Your task to perform on an android device: check data usage Image 0: 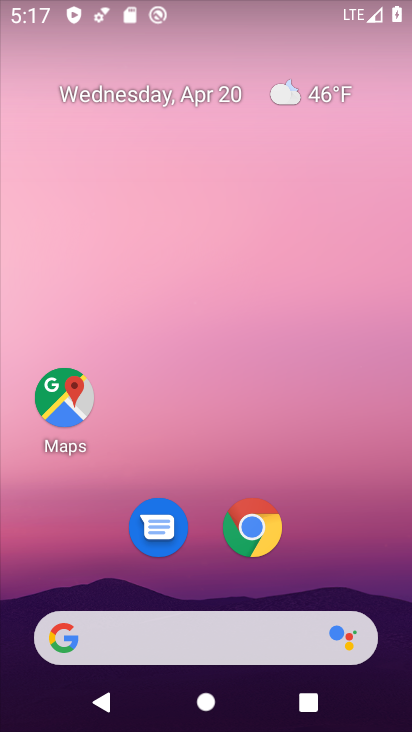
Step 0: drag from (189, 281) to (186, 102)
Your task to perform on an android device: check data usage Image 1: 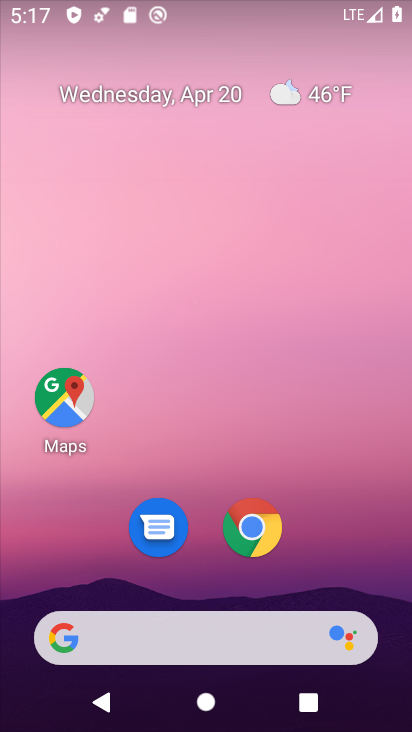
Step 1: drag from (223, 520) to (197, 3)
Your task to perform on an android device: check data usage Image 2: 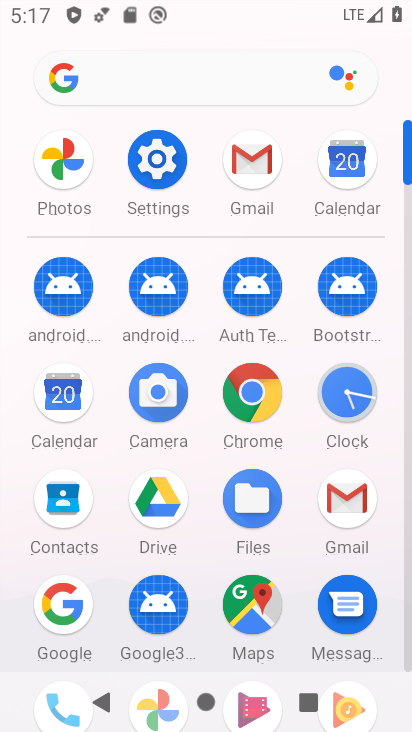
Step 2: click (345, 443)
Your task to perform on an android device: check data usage Image 3: 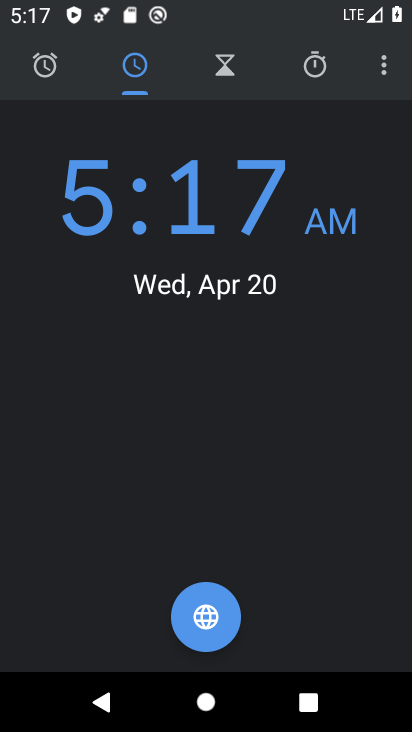
Step 3: click (383, 60)
Your task to perform on an android device: check data usage Image 4: 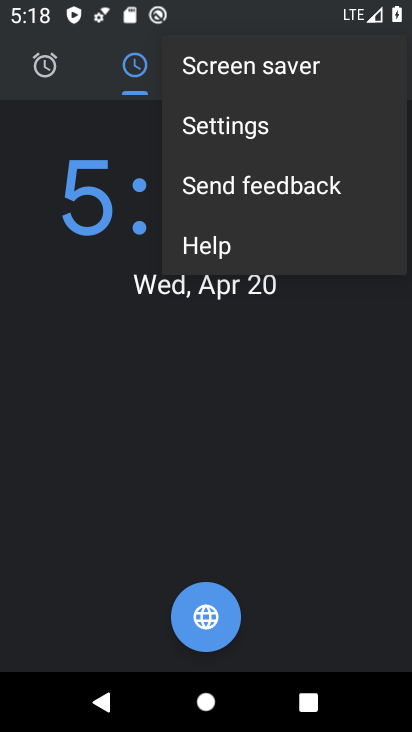
Step 4: click (229, 121)
Your task to perform on an android device: check data usage Image 5: 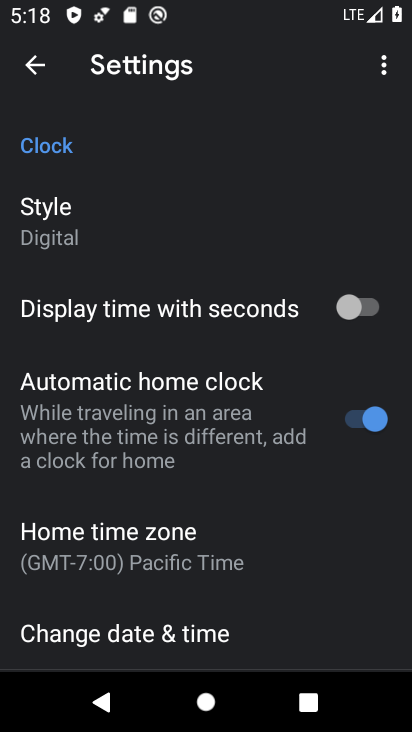
Step 5: press home button
Your task to perform on an android device: check data usage Image 6: 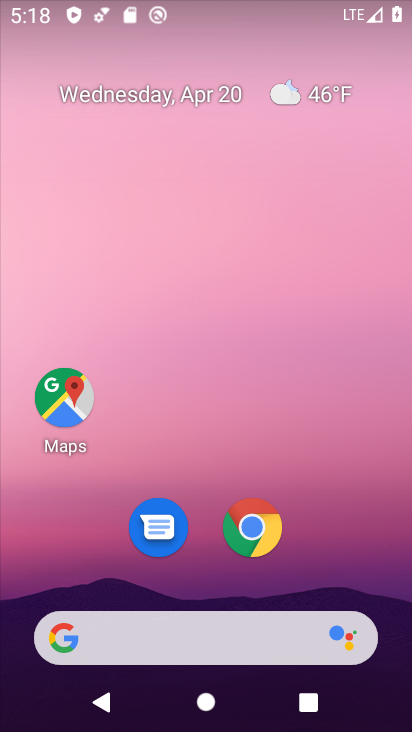
Step 6: drag from (207, 582) to (180, 73)
Your task to perform on an android device: check data usage Image 7: 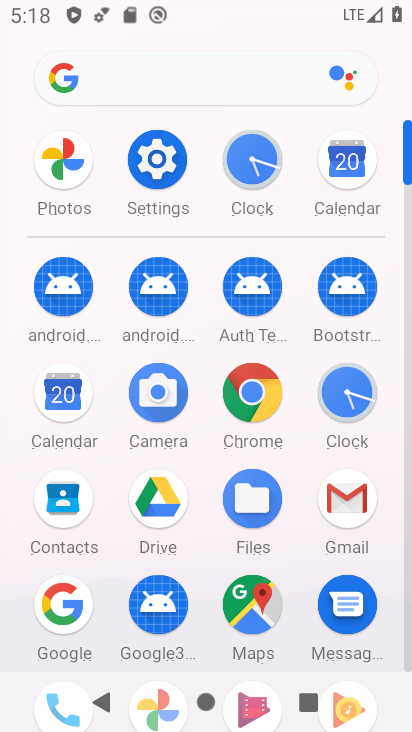
Step 7: click (165, 157)
Your task to perform on an android device: check data usage Image 8: 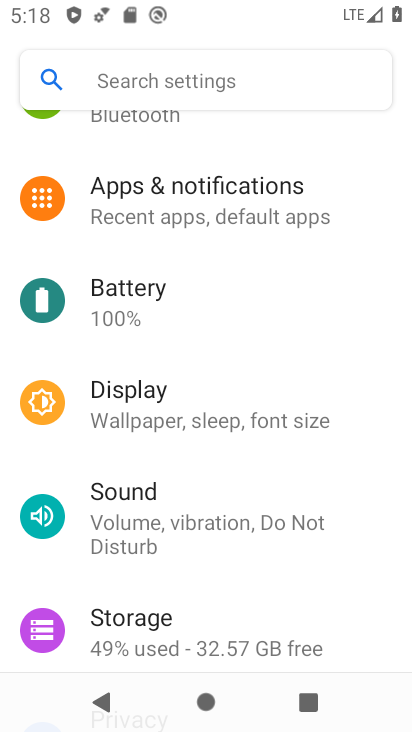
Step 8: drag from (244, 484) to (237, 689)
Your task to perform on an android device: check data usage Image 9: 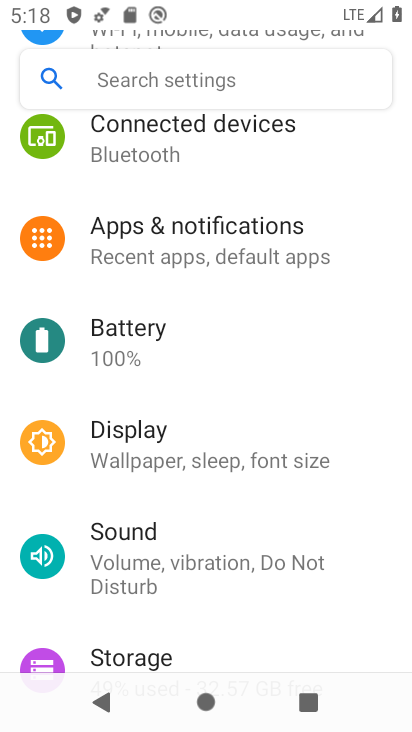
Step 9: drag from (193, 210) to (197, 551)
Your task to perform on an android device: check data usage Image 10: 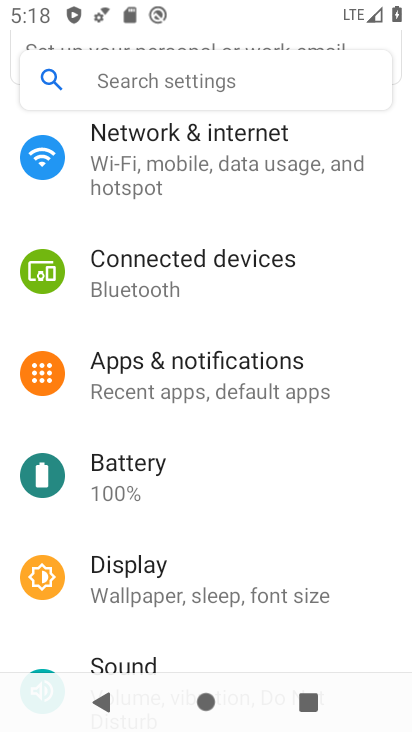
Step 10: click (164, 183)
Your task to perform on an android device: check data usage Image 11: 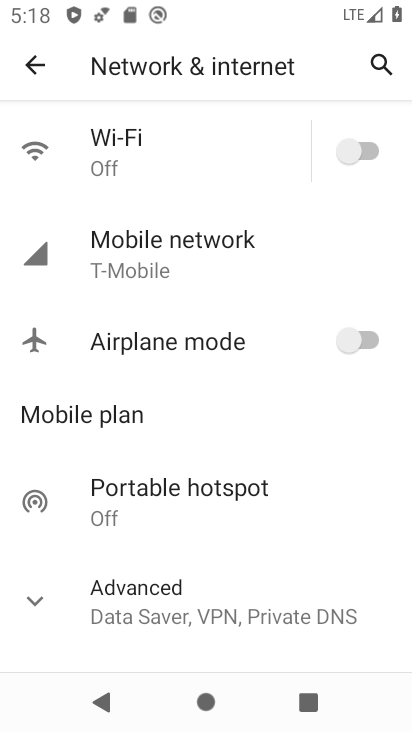
Step 11: click (212, 229)
Your task to perform on an android device: check data usage Image 12: 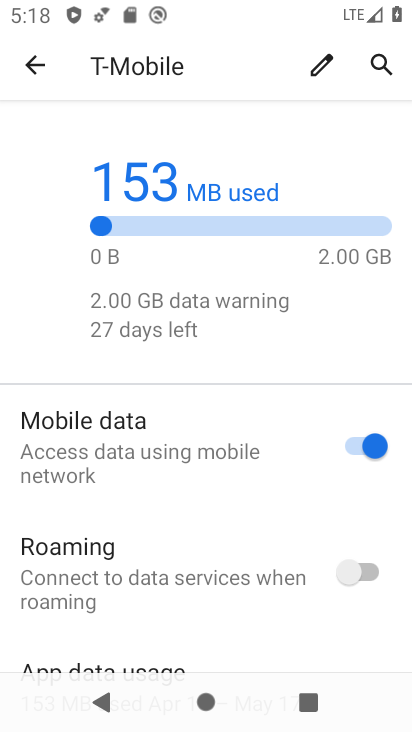
Step 12: task complete